Your task to perform on an android device: Open Maps and search for coffee Image 0: 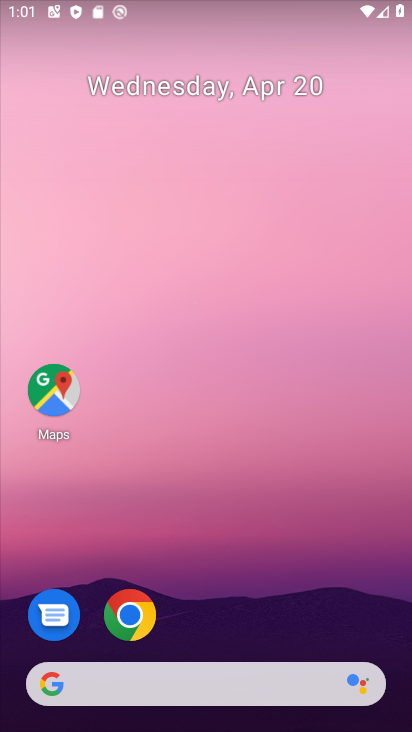
Step 0: drag from (365, 645) to (346, 175)
Your task to perform on an android device: Open Maps and search for coffee Image 1: 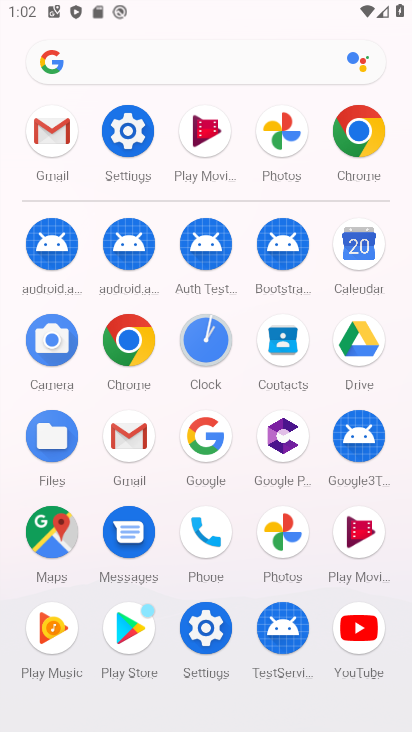
Step 1: click (44, 530)
Your task to perform on an android device: Open Maps and search for coffee Image 2: 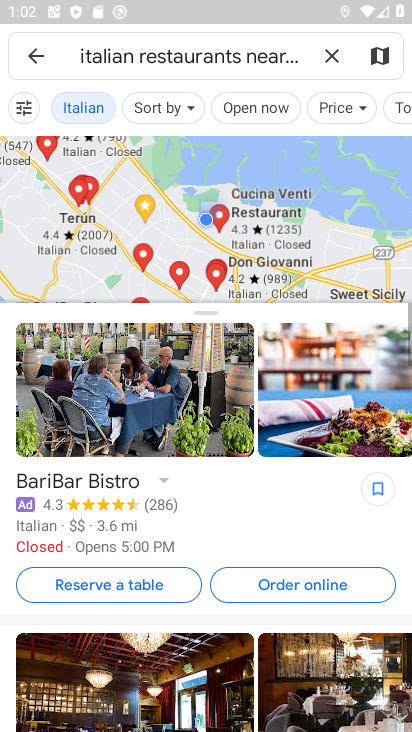
Step 2: click (332, 49)
Your task to perform on an android device: Open Maps and search for coffee Image 3: 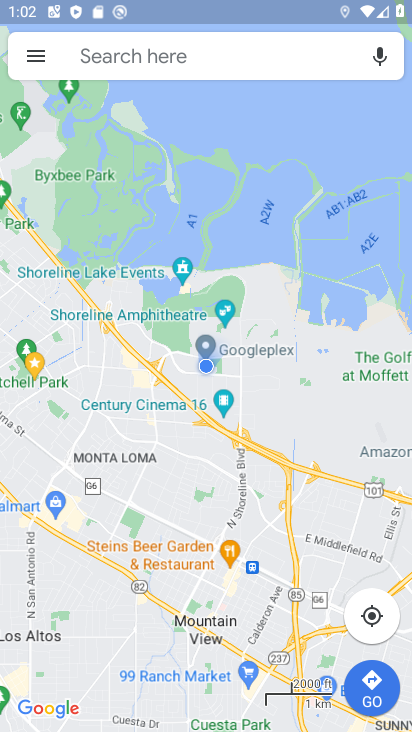
Step 3: click (172, 50)
Your task to perform on an android device: Open Maps and search for coffee Image 4: 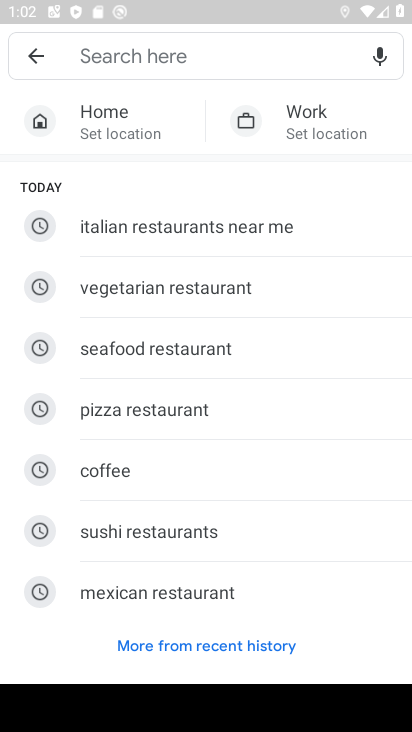
Step 4: type "coffee"
Your task to perform on an android device: Open Maps and search for coffee Image 5: 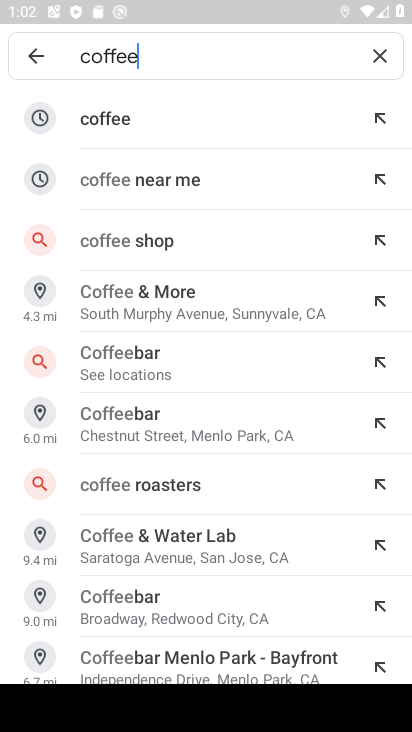
Step 5: click (86, 113)
Your task to perform on an android device: Open Maps and search for coffee Image 6: 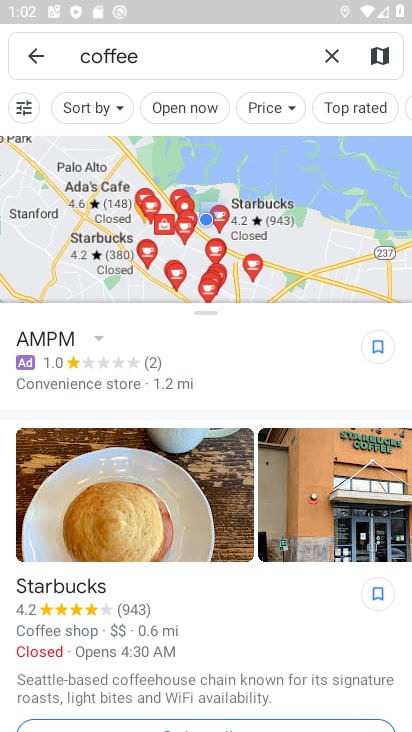
Step 6: task complete